Your task to perform on an android device: open sync settings in chrome Image 0: 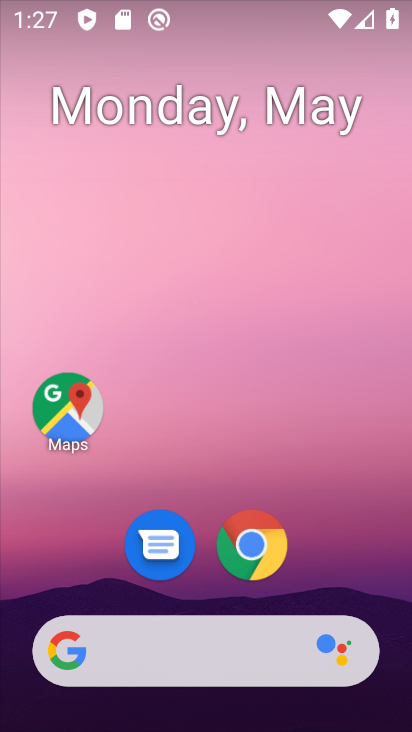
Step 0: click (253, 541)
Your task to perform on an android device: open sync settings in chrome Image 1: 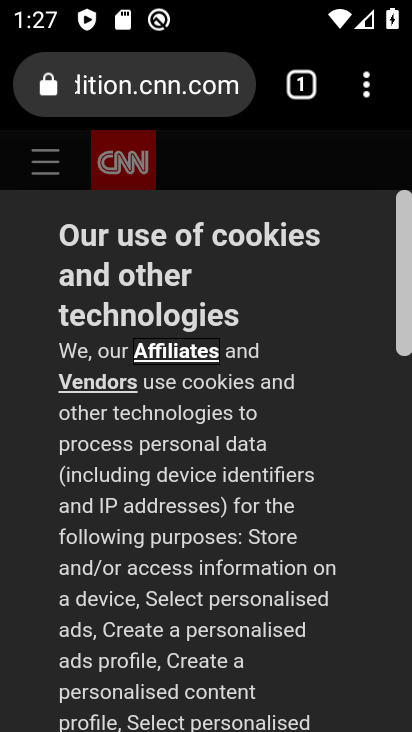
Step 1: click (377, 66)
Your task to perform on an android device: open sync settings in chrome Image 2: 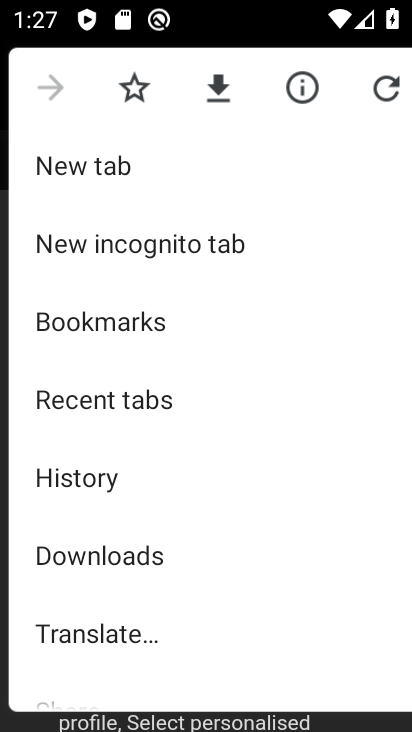
Step 2: drag from (224, 640) to (227, 81)
Your task to perform on an android device: open sync settings in chrome Image 3: 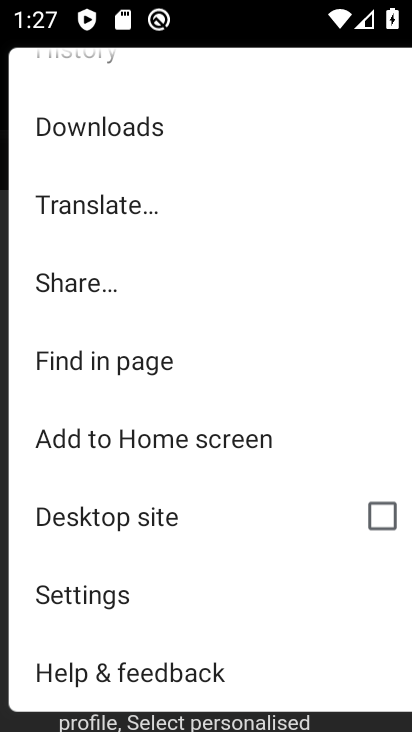
Step 3: click (124, 592)
Your task to perform on an android device: open sync settings in chrome Image 4: 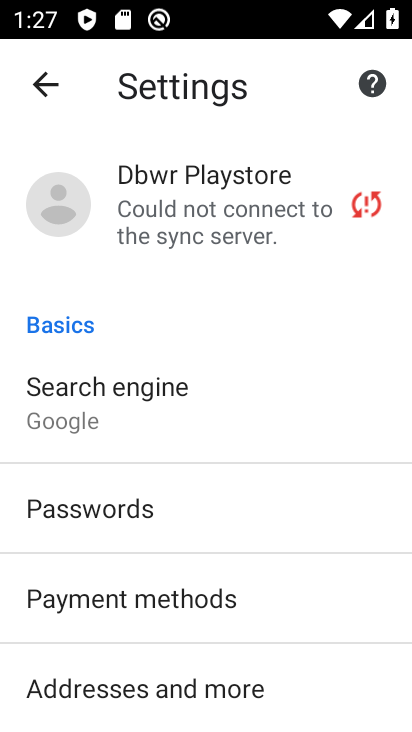
Step 4: click (259, 219)
Your task to perform on an android device: open sync settings in chrome Image 5: 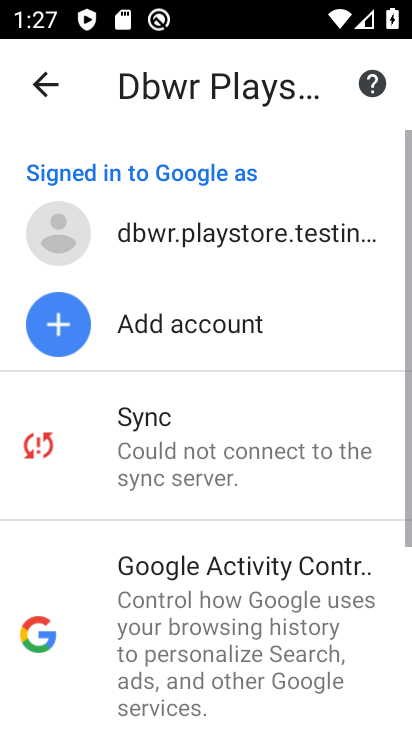
Step 5: task complete